Your task to perform on an android device: remove spam from my inbox in the gmail app Image 0: 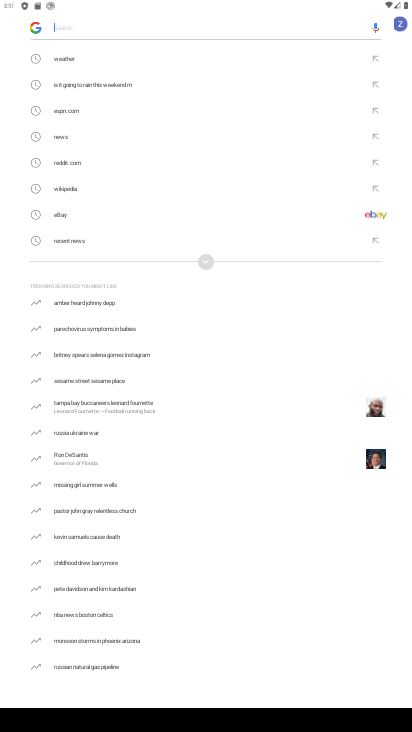
Step 0: press home button
Your task to perform on an android device: remove spam from my inbox in the gmail app Image 1: 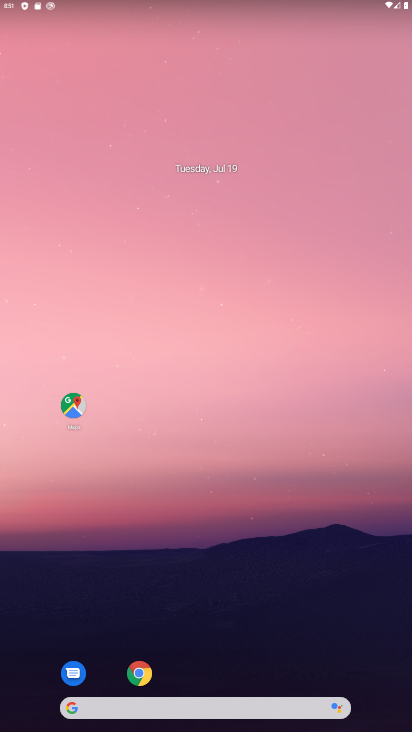
Step 1: drag from (213, 671) to (209, 83)
Your task to perform on an android device: remove spam from my inbox in the gmail app Image 2: 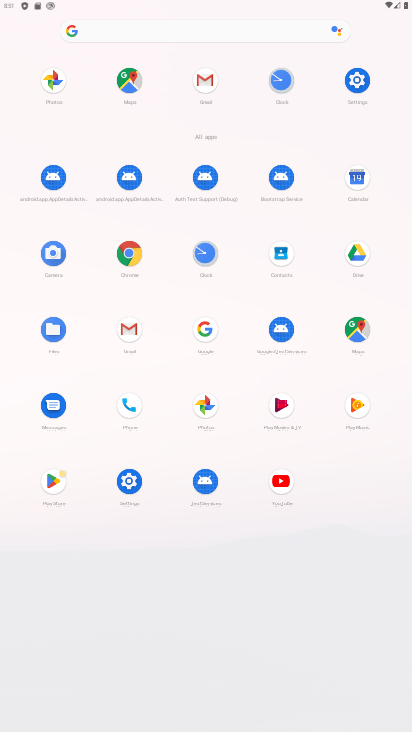
Step 2: click (187, 83)
Your task to perform on an android device: remove spam from my inbox in the gmail app Image 3: 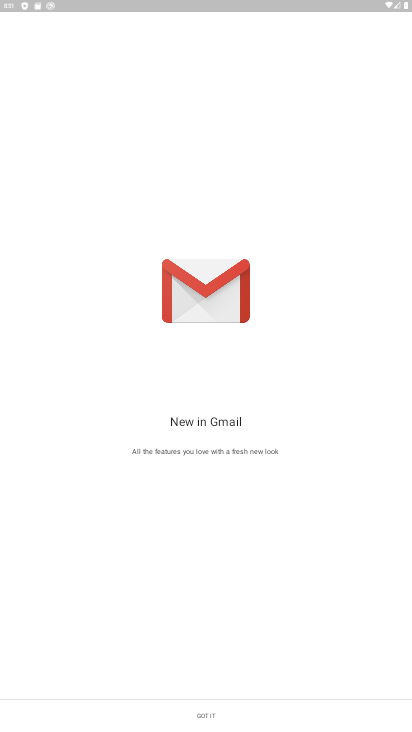
Step 3: click (228, 720)
Your task to perform on an android device: remove spam from my inbox in the gmail app Image 4: 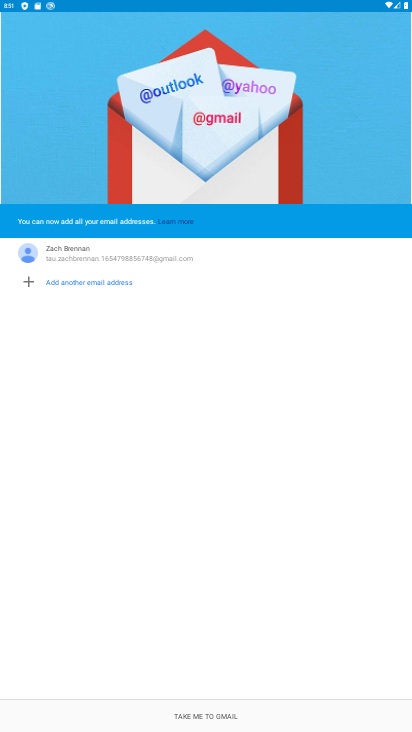
Step 4: click (228, 708)
Your task to perform on an android device: remove spam from my inbox in the gmail app Image 5: 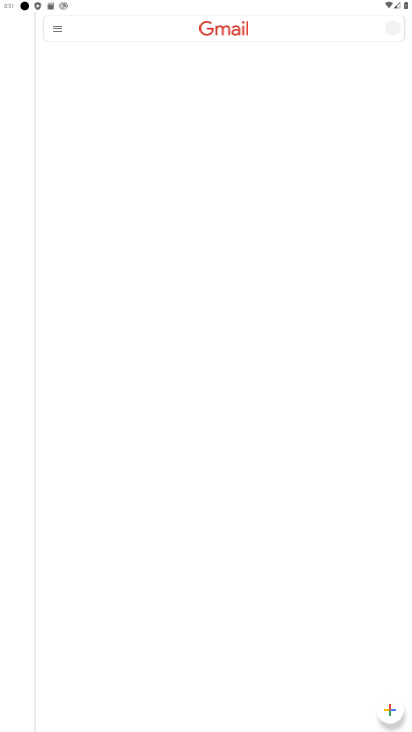
Step 5: click (228, 725)
Your task to perform on an android device: remove spam from my inbox in the gmail app Image 6: 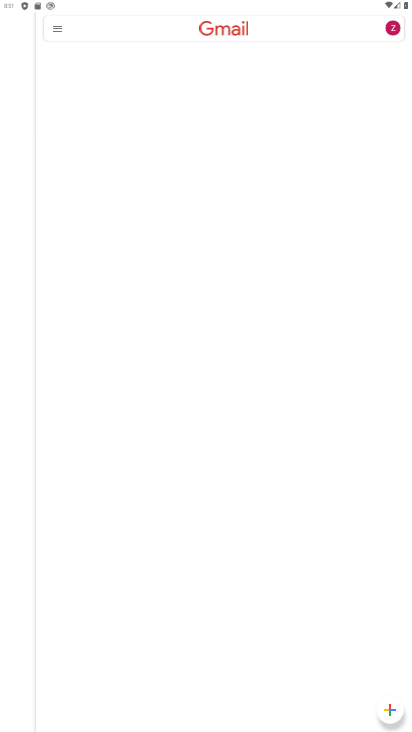
Step 6: click (228, 725)
Your task to perform on an android device: remove spam from my inbox in the gmail app Image 7: 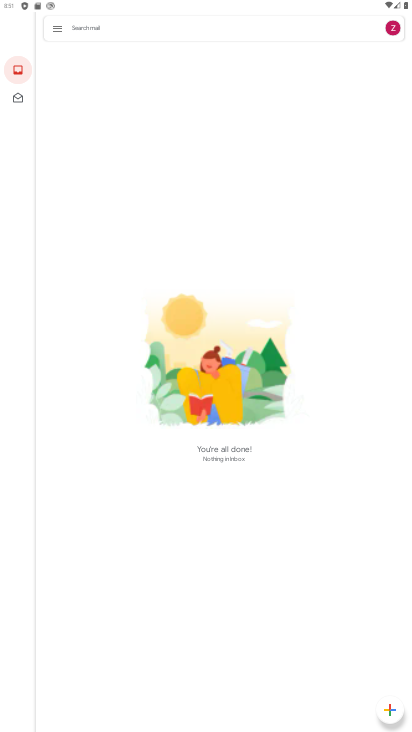
Step 7: click (61, 34)
Your task to perform on an android device: remove spam from my inbox in the gmail app Image 8: 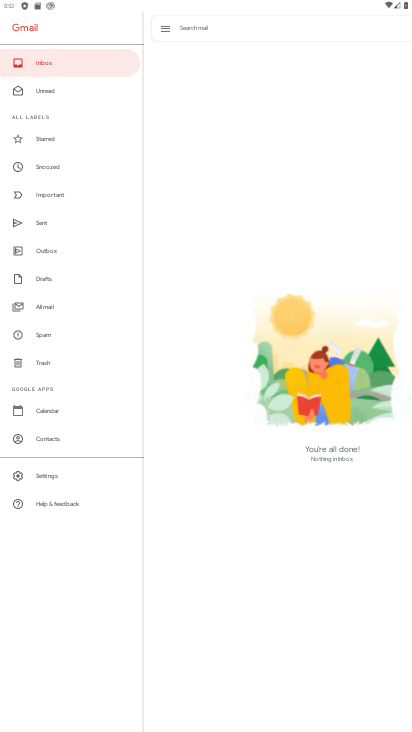
Step 8: click (53, 329)
Your task to perform on an android device: remove spam from my inbox in the gmail app Image 9: 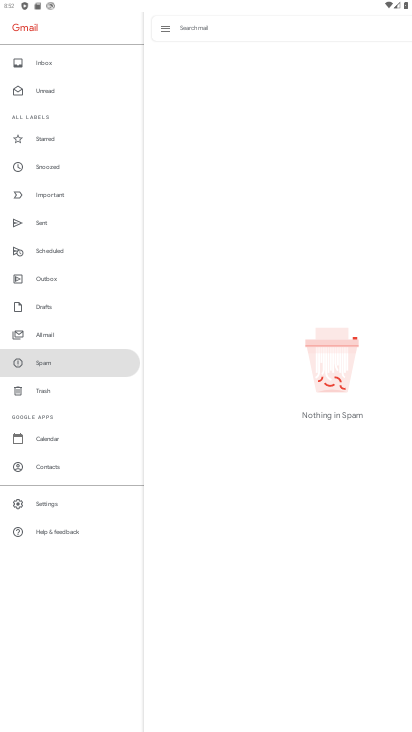
Step 9: task complete